Your task to perform on an android device: set the timer Image 0: 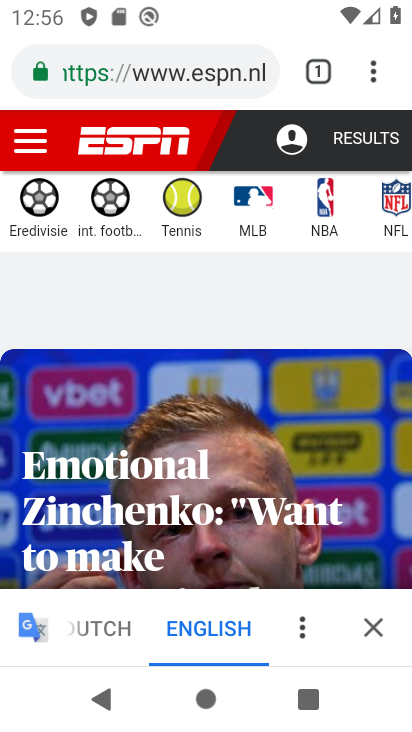
Step 0: press home button
Your task to perform on an android device: set the timer Image 1: 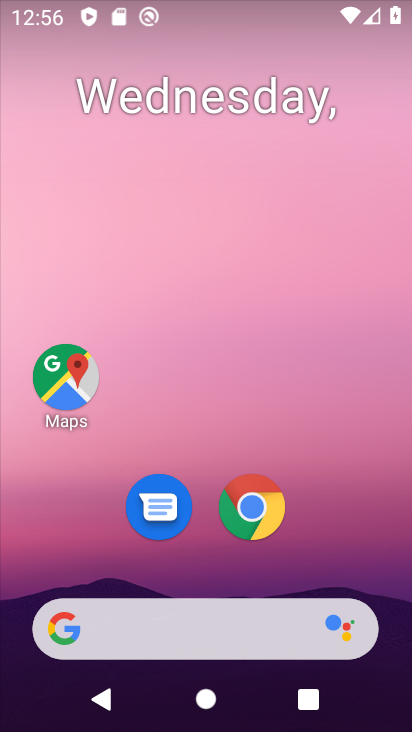
Step 1: drag from (164, 633) to (314, 87)
Your task to perform on an android device: set the timer Image 2: 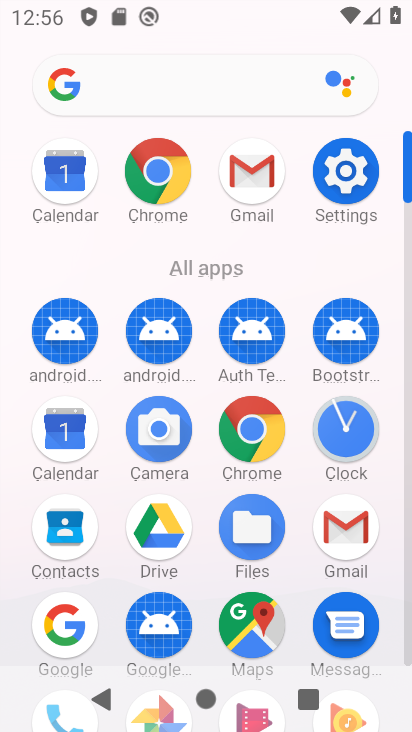
Step 2: click (342, 442)
Your task to perform on an android device: set the timer Image 3: 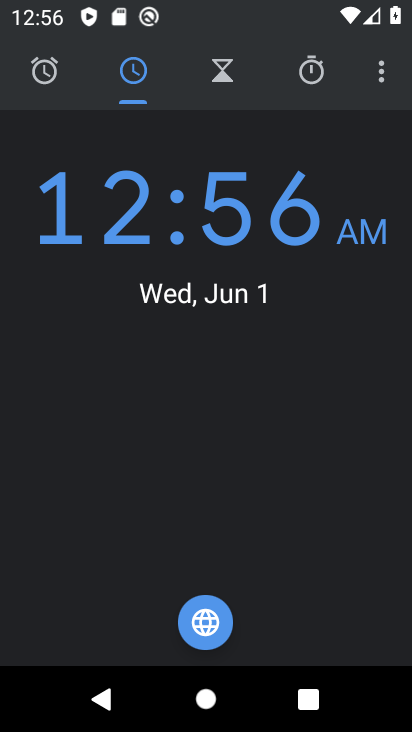
Step 3: click (224, 75)
Your task to perform on an android device: set the timer Image 4: 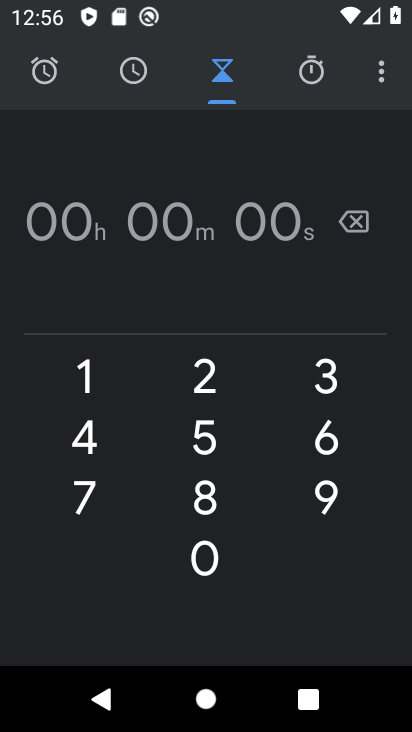
Step 4: click (204, 371)
Your task to perform on an android device: set the timer Image 5: 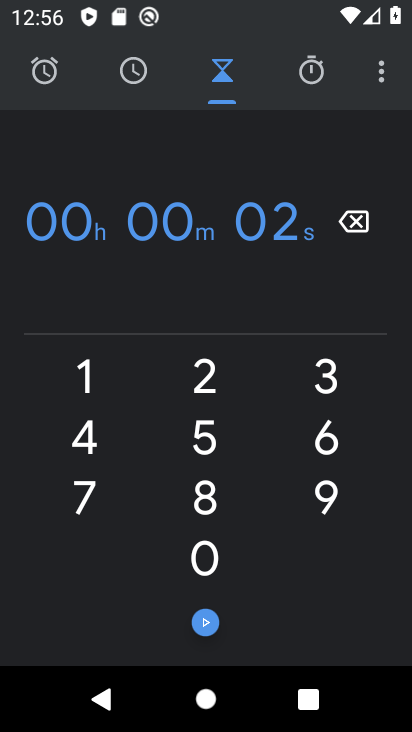
Step 5: click (330, 393)
Your task to perform on an android device: set the timer Image 6: 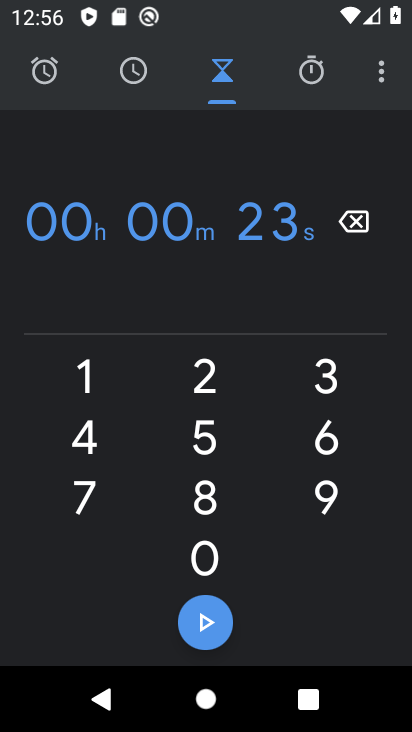
Step 6: click (208, 622)
Your task to perform on an android device: set the timer Image 7: 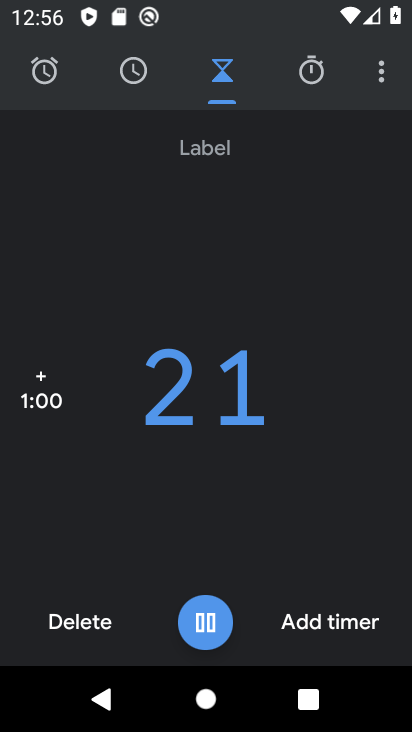
Step 7: click (208, 621)
Your task to perform on an android device: set the timer Image 8: 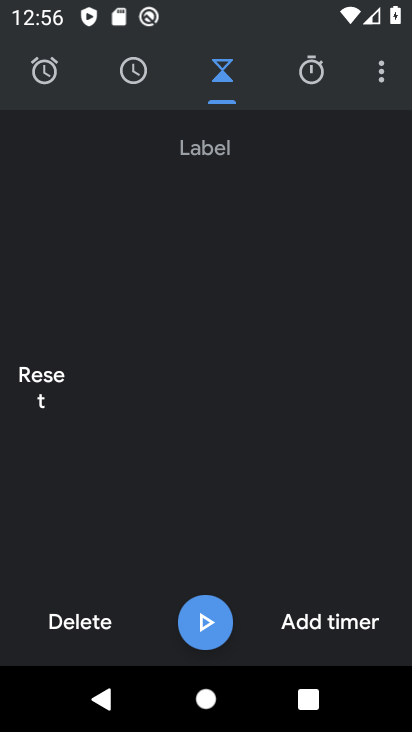
Step 8: task complete